Your task to perform on an android device: allow cookies in the chrome app Image 0: 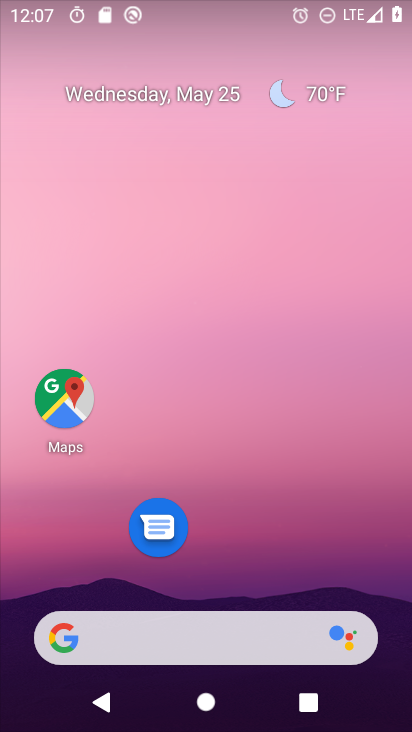
Step 0: drag from (266, 559) to (269, 108)
Your task to perform on an android device: allow cookies in the chrome app Image 1: 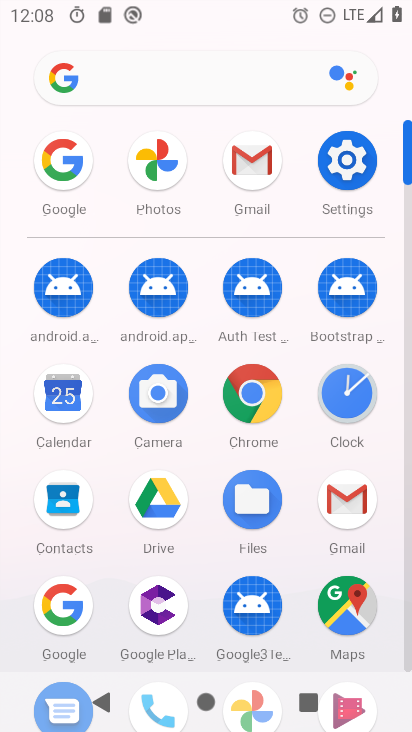
Step 1: click (252, 392)
Your task to perform on an android device: allow cookies in the chrome app Image 2: 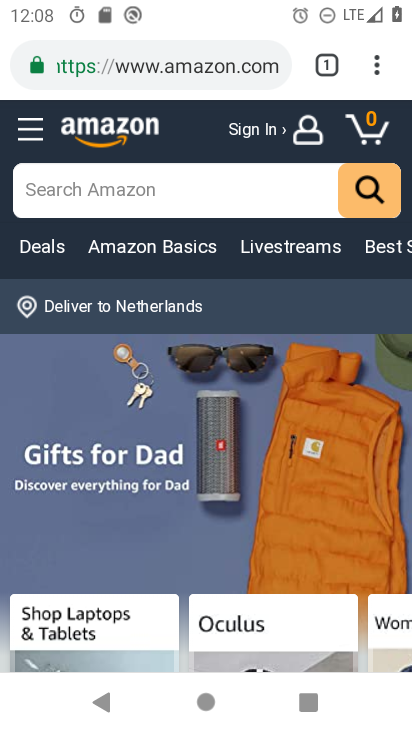
Step 2: click (371, 66)
Your task to perform on an android device: allow cookies in the chrome app Image 3: 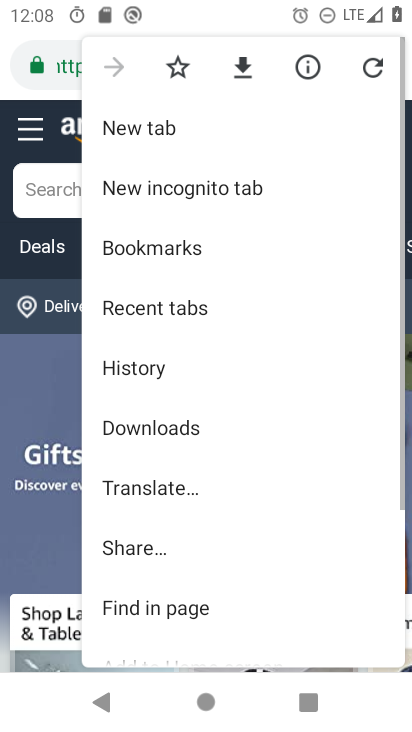
Step 3: drag from (230, 561) to (238, 71)
Your task to perform on an android device: allow cookies in the chrome app Image 4: 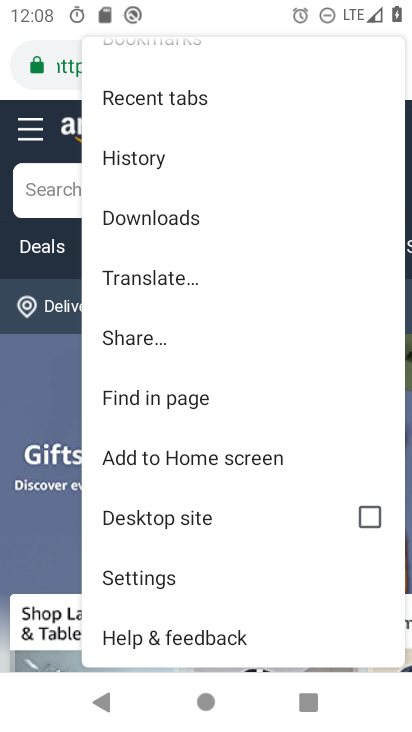
Step 4: click (197, 585)
Your task to perform on an android device: allow cookies in the chrome app Image 5: 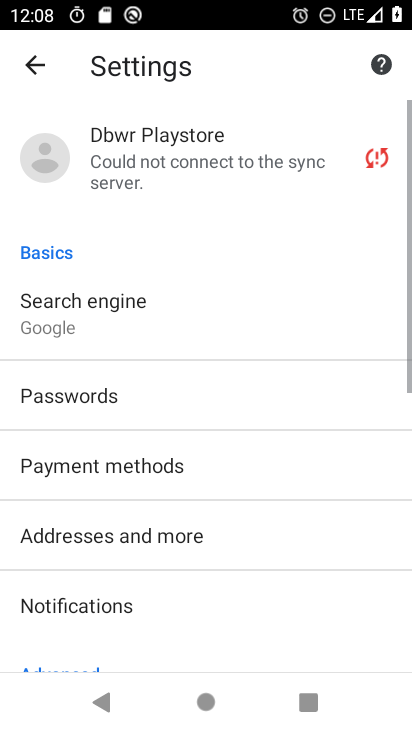
Step 5: drag from (211, 577) to (195, 157)
Your task to perform on an android device: allow cookies in the chrome app Image 6: 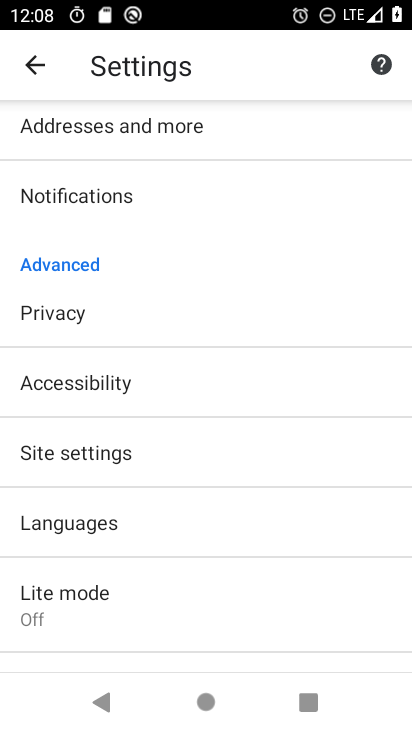
Step 6: click (56, 310)
Your task to perform on an android device: allow cookies in the chrome app Image 7: 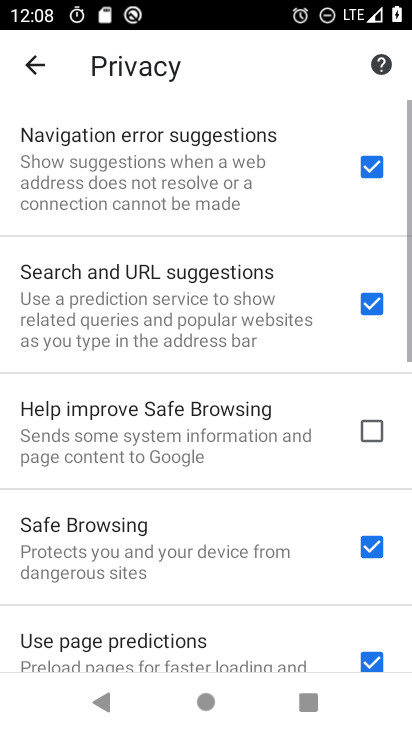
Step 7: drag from (206, 556) to (212, 183)
Your task to perform on an android device: allow cookies in the chrome app Image 8: 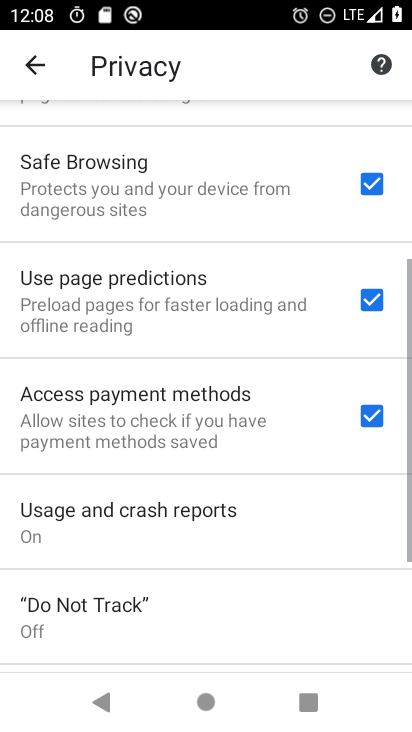
Step 8: drag from (158, 597) to (217, 156)
Your task to perform on an android device: allow cookies in the chrome app Image 9: 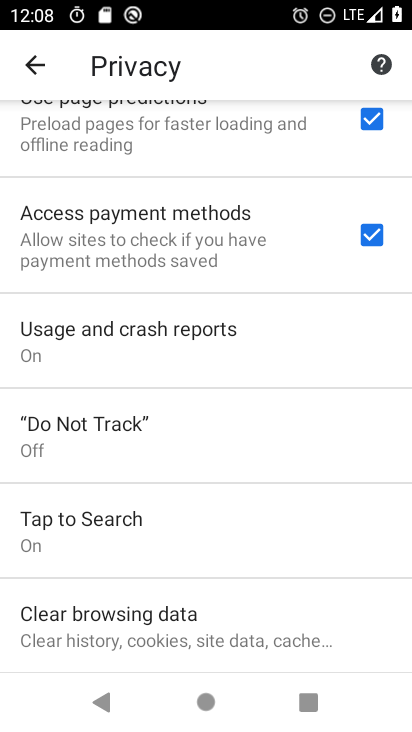
Step 9: click (170, 622)
Your task to perform on an android device: allow cookies in the chrome app Image 10: 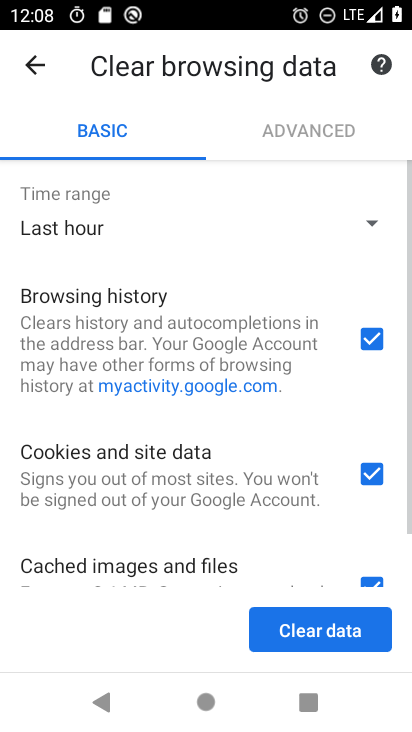
Step 10: drag from (288, 416) to (271, 147)
Your task to perform on an android device: allow cookies in the chrome app Image 11: 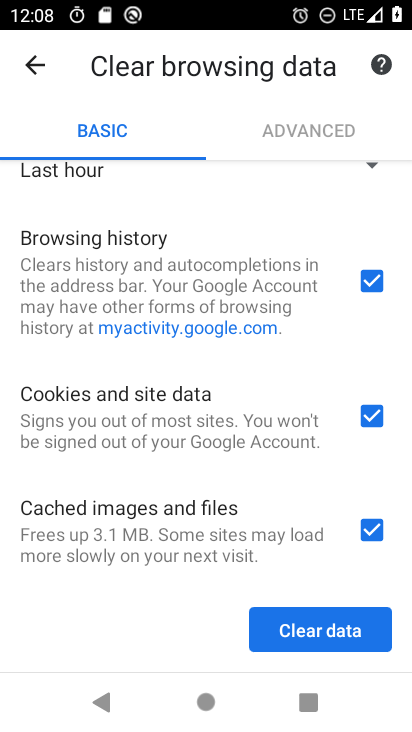
Step 11: click (364, 278)
Your task to perform on an android device: allow cookies in the chrome app Image 12: 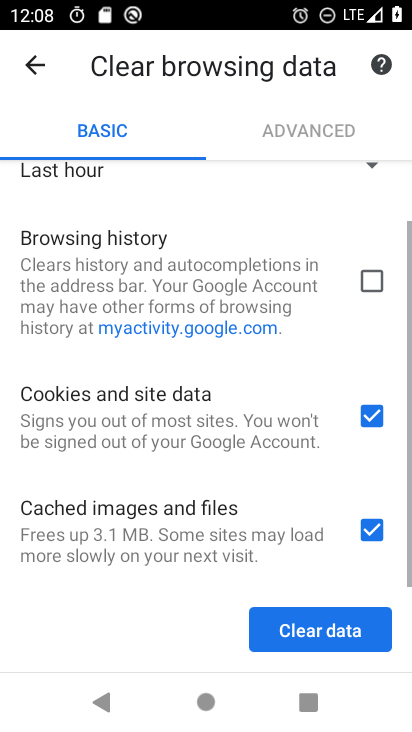
Step 12: click (369, 522)
Your task to perform on an android device: allow cookies in the chrome app Image 13: 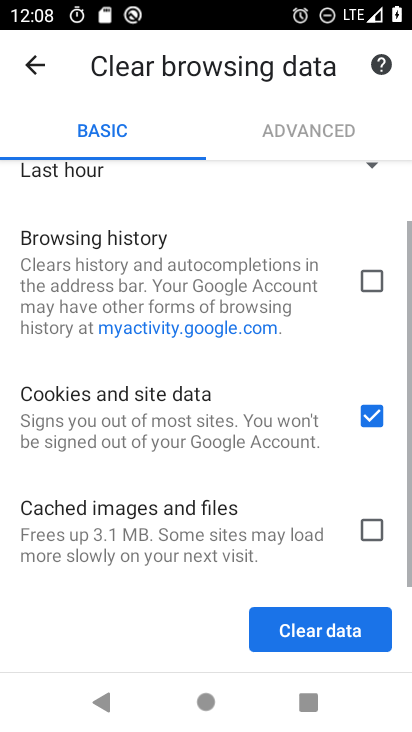
Step 13: click (301, 627)
Your task to perform on an android device: allow cookies in the chrome app Image 14: 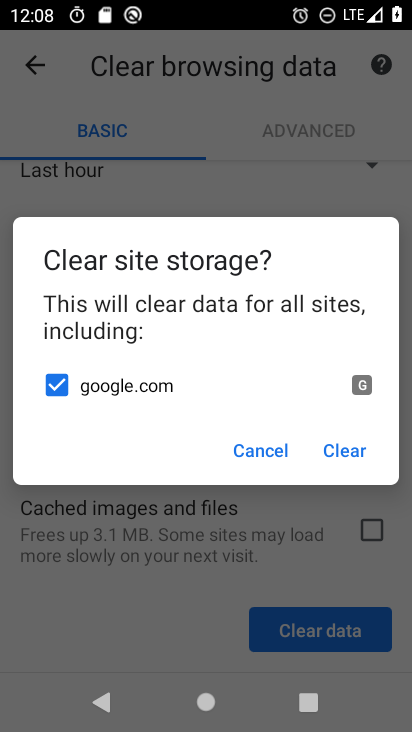
Step 14: click (348, 448)
Your task to perform on an android device: allow cookies in the chrome app Image 15: 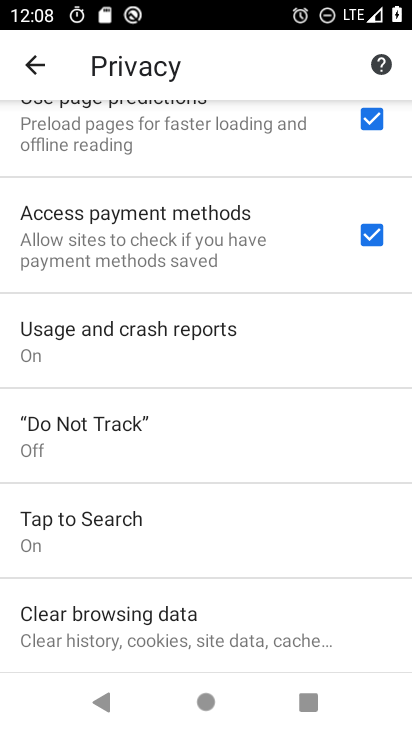
Step 15: task complete